Your task to perform on an android device: find snoozed emails in the gmail app Image 0: 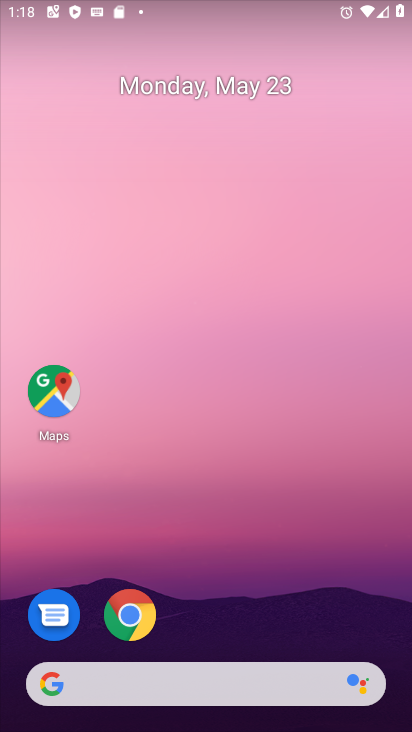
Step 0: drag from (194, 718) to (191, 53)
Your task to perform on an android device: find snoozed emails in the gmail app Image 1: 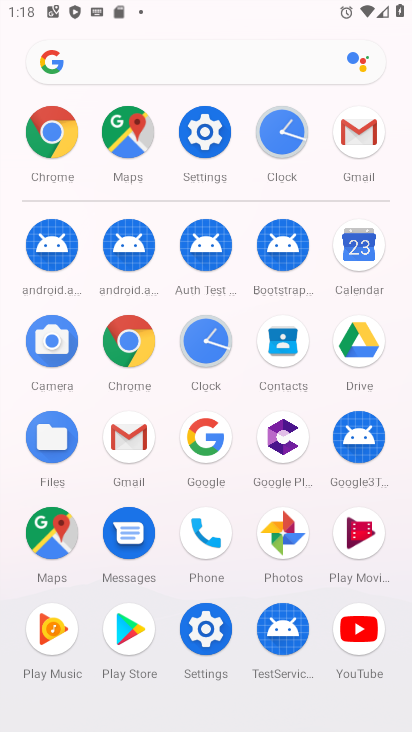
Step 1: click (130, 439)
Your task to perform on an android device: find snoozed emails in the gmail app Image 2: 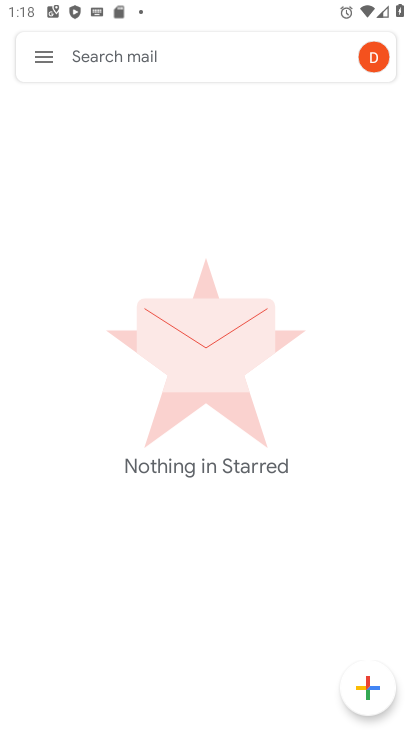
Step 2: click (41, 65)
Your task to perform on an android device: find snoozed emails in the gmail app Image 3: 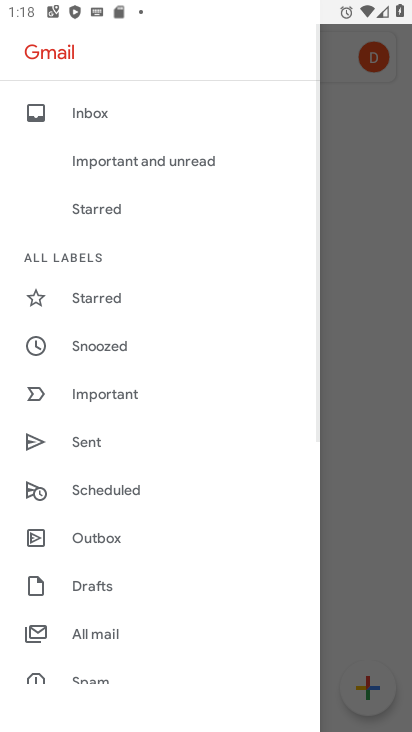
Step 3: click (84, 343)
Your task to perform on an android device: find snoozed emails in the gmail app Image 4: 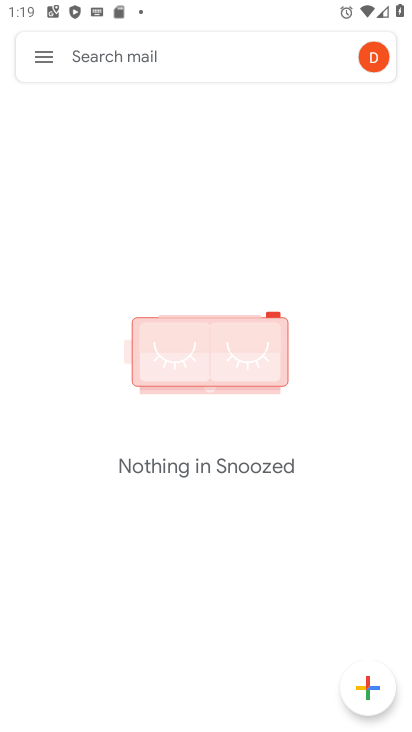
Step 4: task complete